Your task to perform on an android device: clear all cookies in the chrome app Image 0: 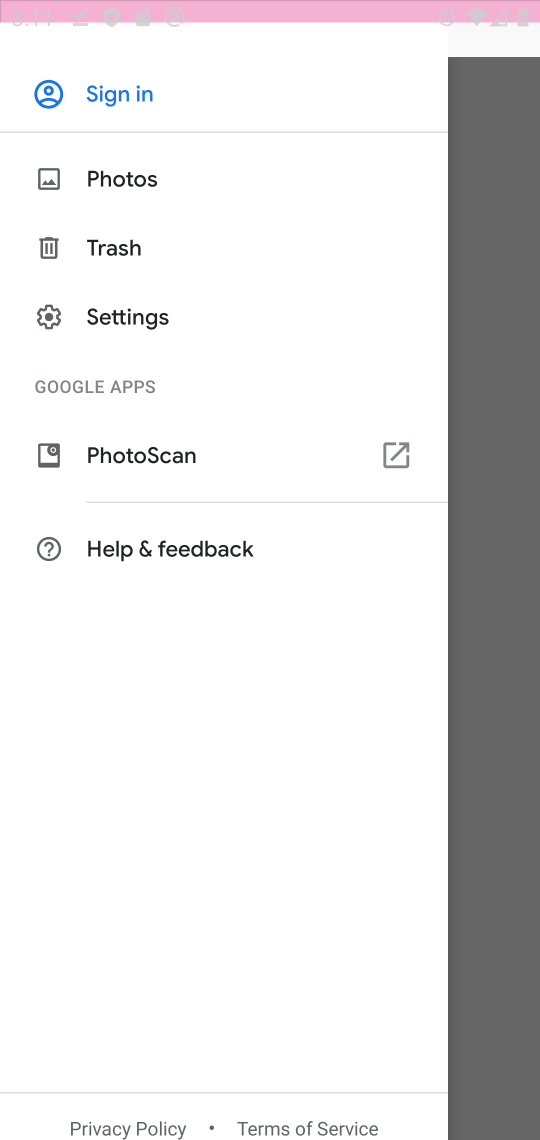
Step 0: click (396, 367)
Your task to perform on an android device: clear all cookies in the chrome app Image 1: 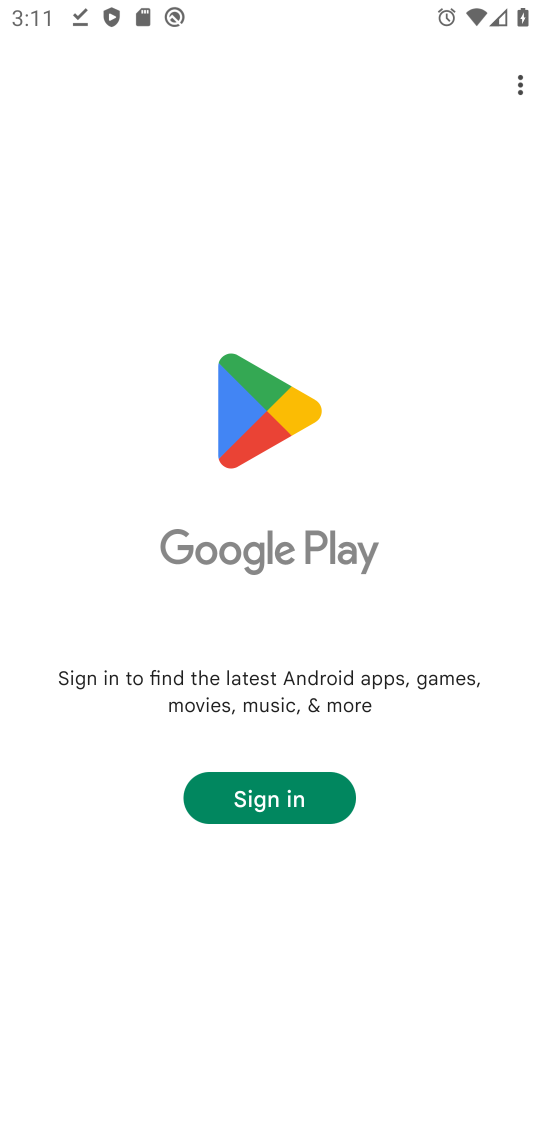
Step 1: press home button
Your task to perform on an android device: clear all cookies in the chrome app Image 2: 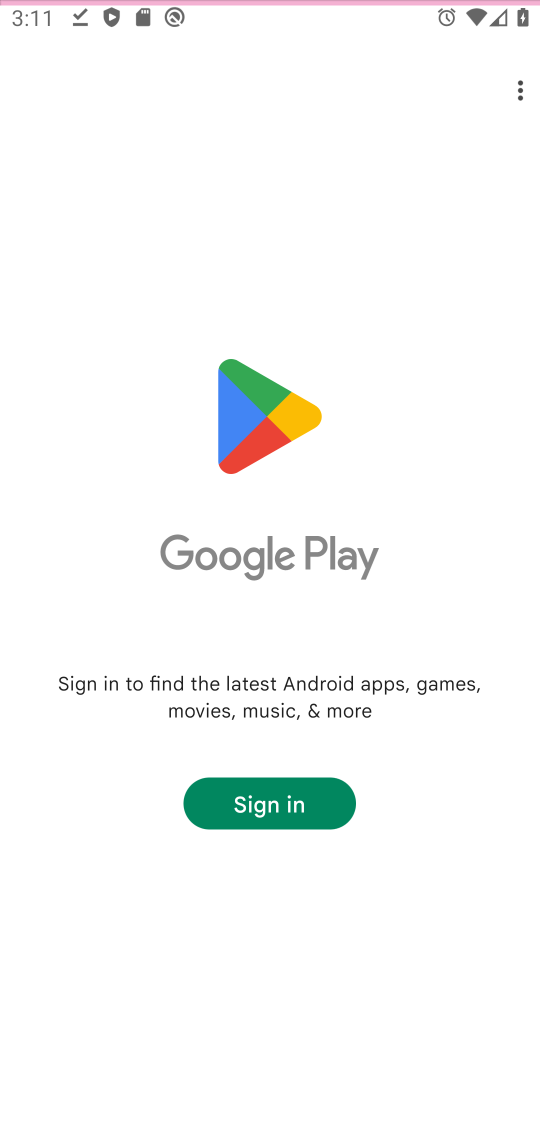
Step 2: press home button
Your task to perform on an android device: clear all cookies in the chrome app Image 3: 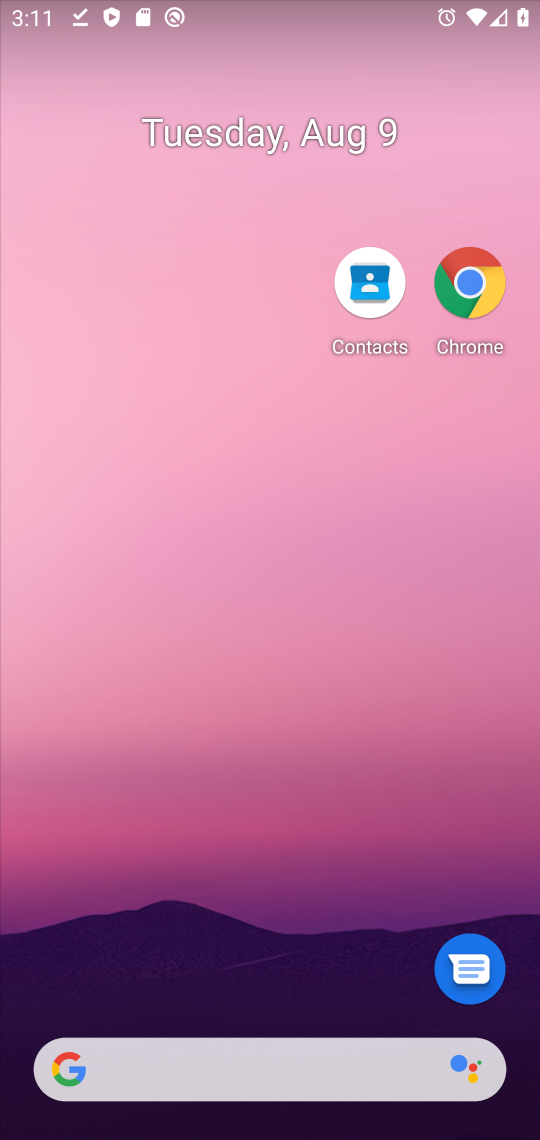
Step 3: drag from (229, 1006) to (295, 108)
Your task to perform on an android device: clear all cookies in the chrome app Image 4: 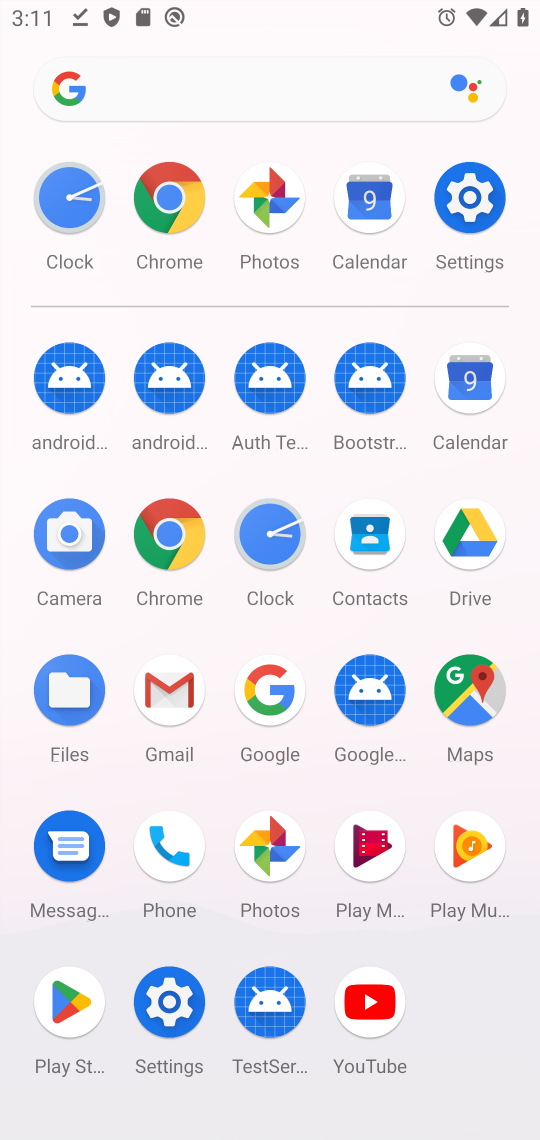
Step 4: click (164, 519)
Your task to perform on an android device: clear all cookies in the chrome app Image 5: 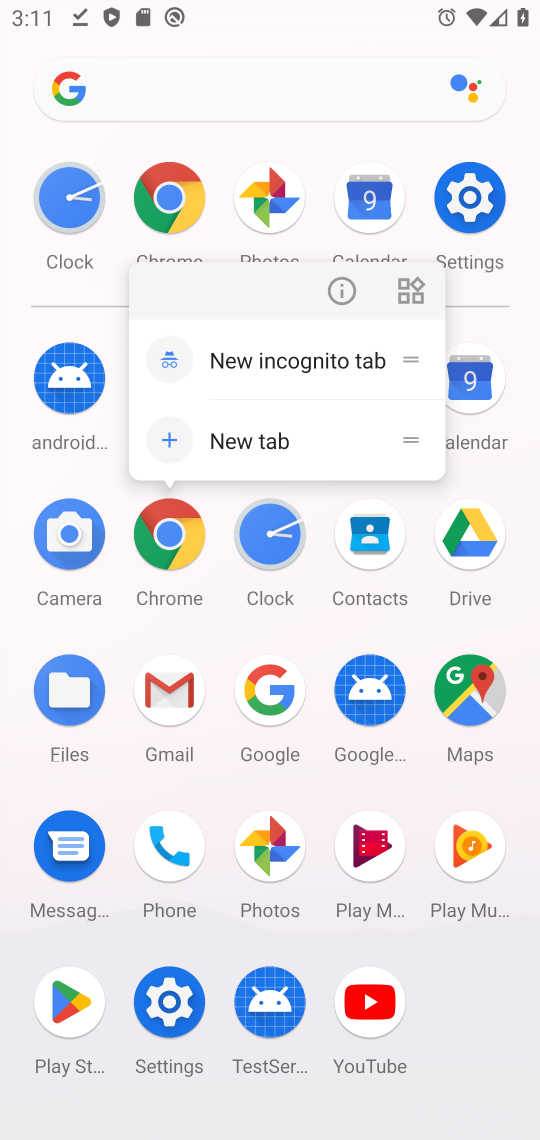
Step 5: click (341, 291)
Your task to perform on an android device: clear all cookies in the chrome app Image 6: 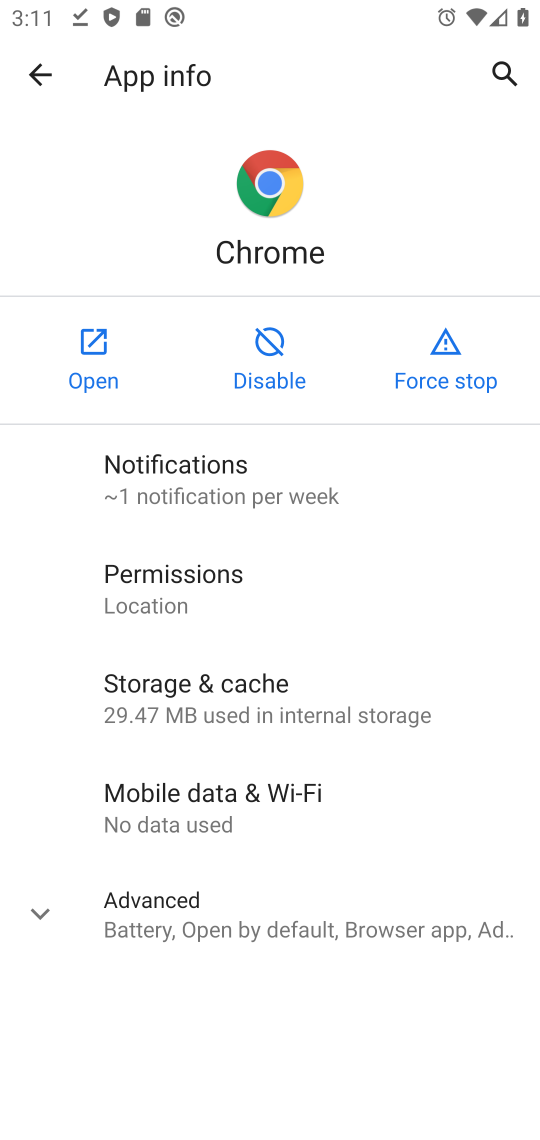
Step 6: click (83, 363)
Your task to perform on an android device: clear all cookies in the chrome app Image 7: 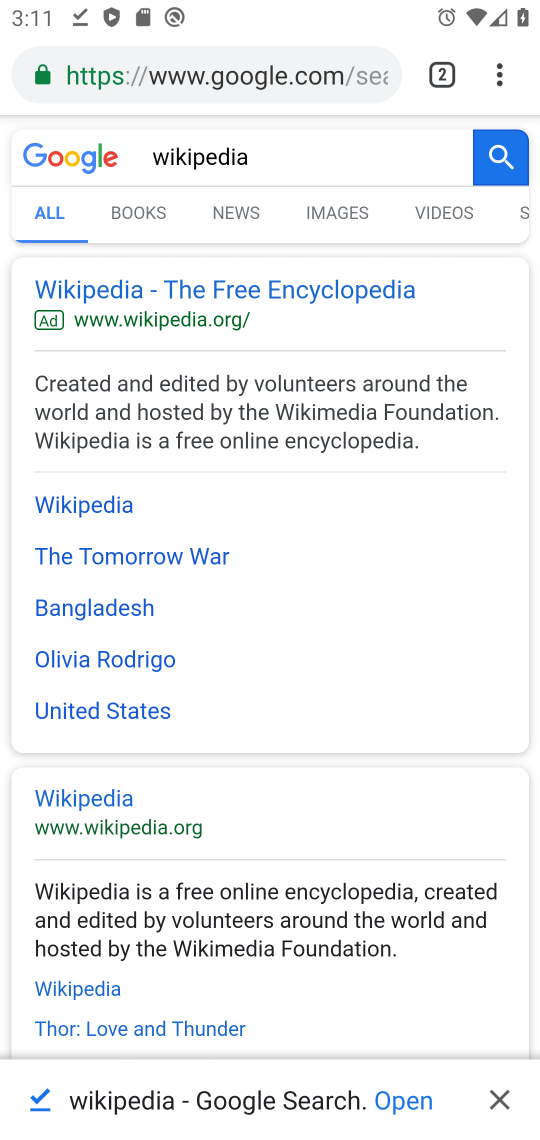
Step 7: drag from (495, 79) to (229, 434)
Your task to perform on an android device: clear all cookies in the chrome app Image 8: 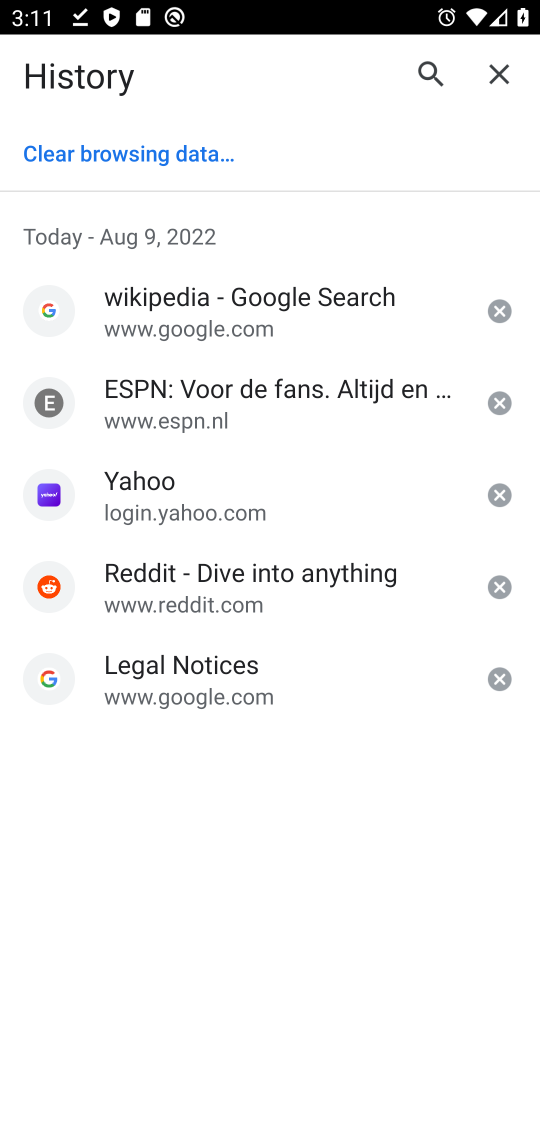
Step 8: click (174, 169)
Your task to perform on an android device: clear all cookies in the chrome app Image 9: 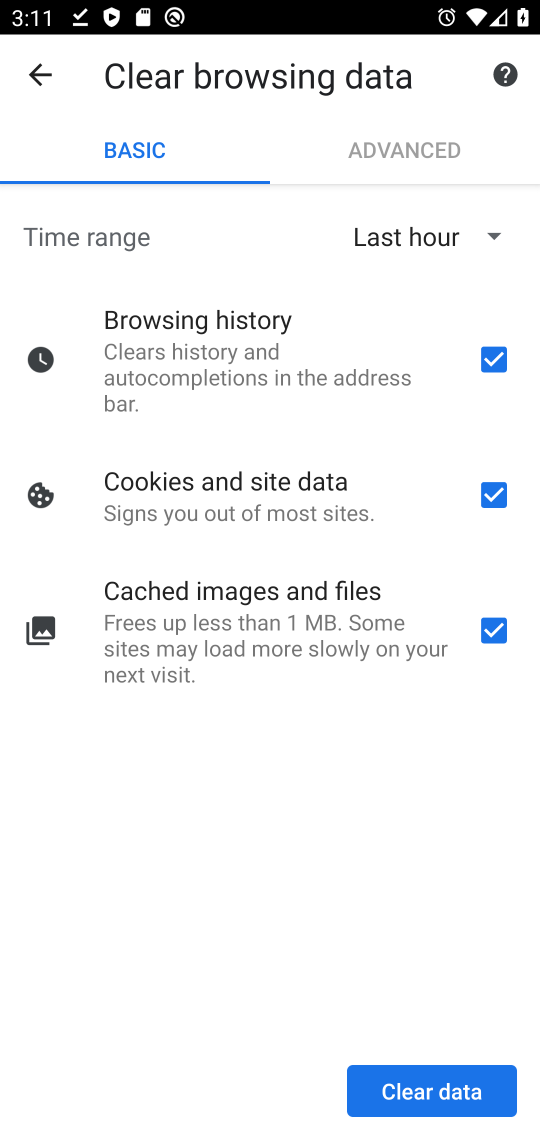
Step 9: click (500, 340)
Your task to perform on an android device: clear all cookies in the chrome app Image 10: 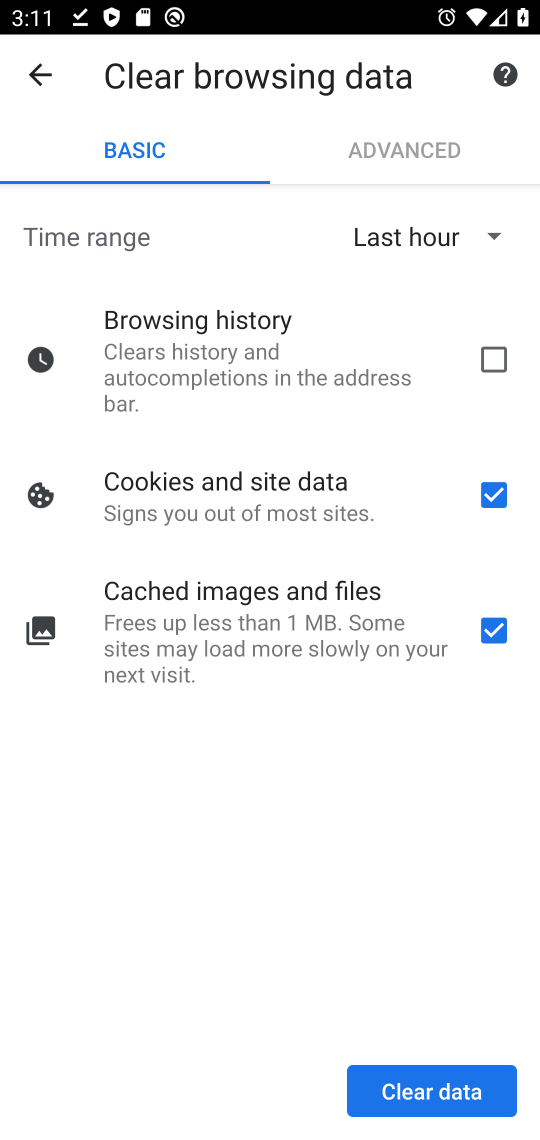
Step 10: click (509, 644)
Your task to perform on an android device: clear all cookies in the chrome app Image 11: 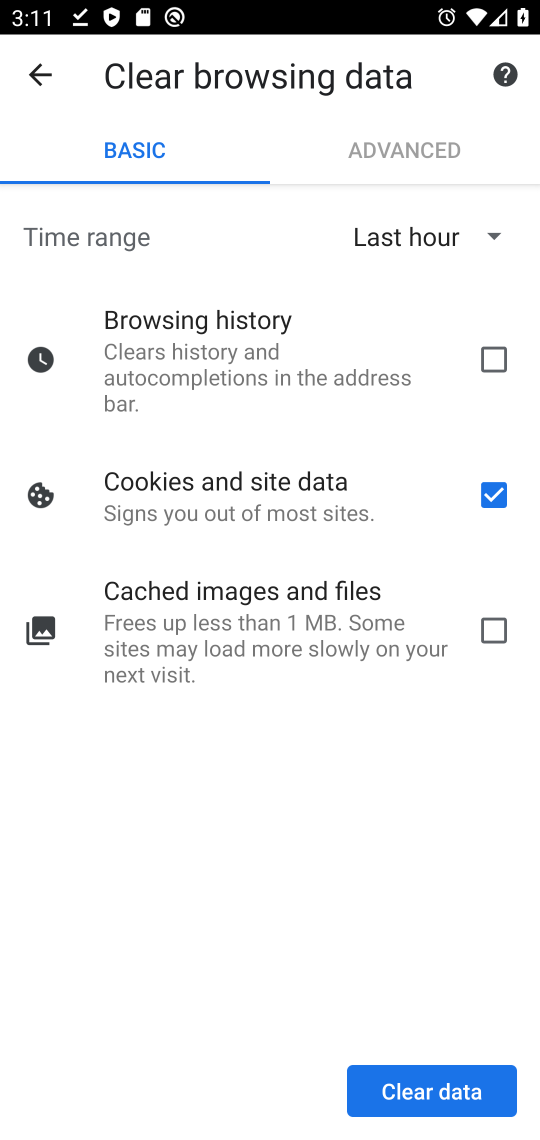
Step 11: click (429, 1100)
Your task to perform on an android device: clear all cookies in the chrome app Image 12: 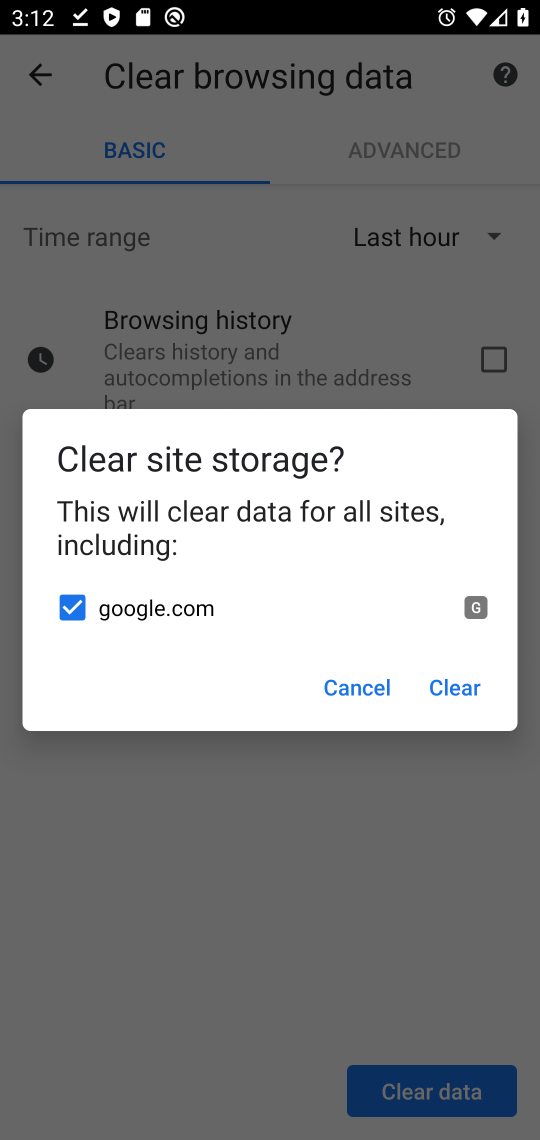
Step 12: click (461, 678)
Your task to perform on an android device: clear all cookies in the chrome app Image 13: 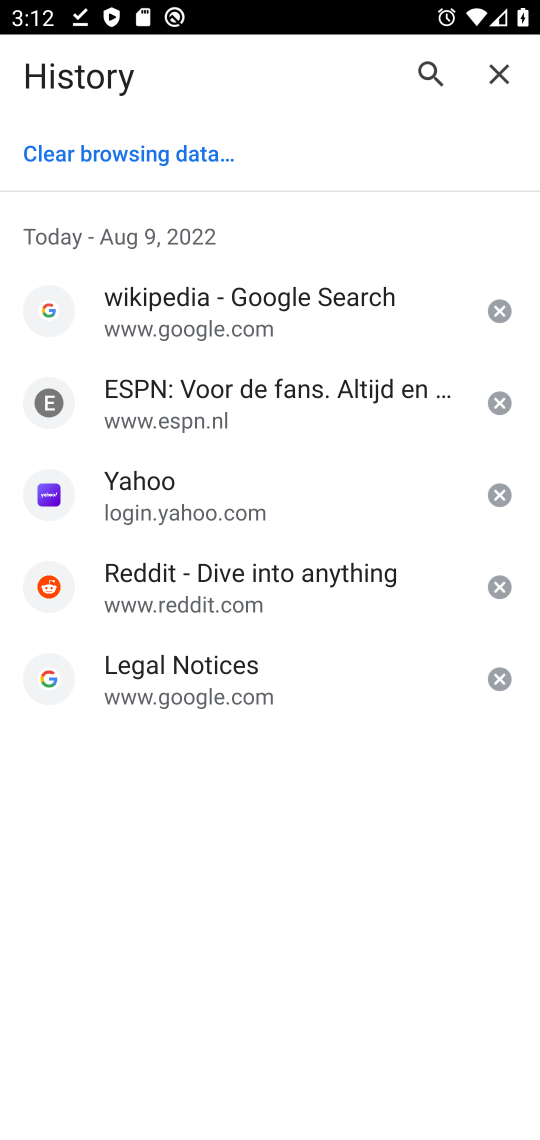
Step 13: task complete